Your task to perform on an android device: Clear all items from cart on target. Search for logitech g pro on target, select the first entry, add it to the cart, then select checkout. Image 0: 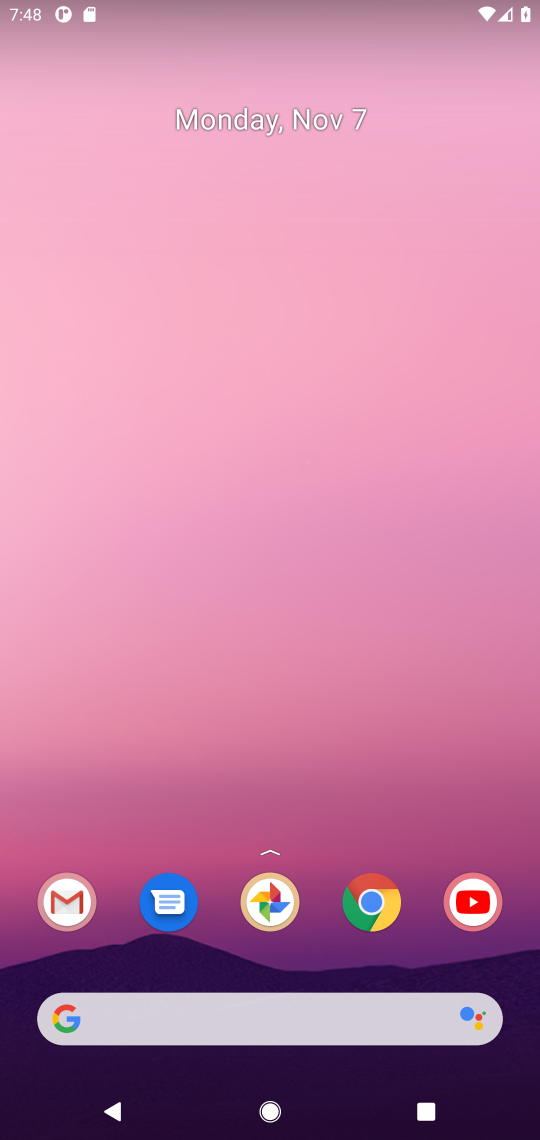
Step 0: click (360, 892)
Your task to perform on an android device: Clear all items from cart on target. Search for logitech g pro on target, select the first entry, add it to the cart, then select checkout. Image 1: 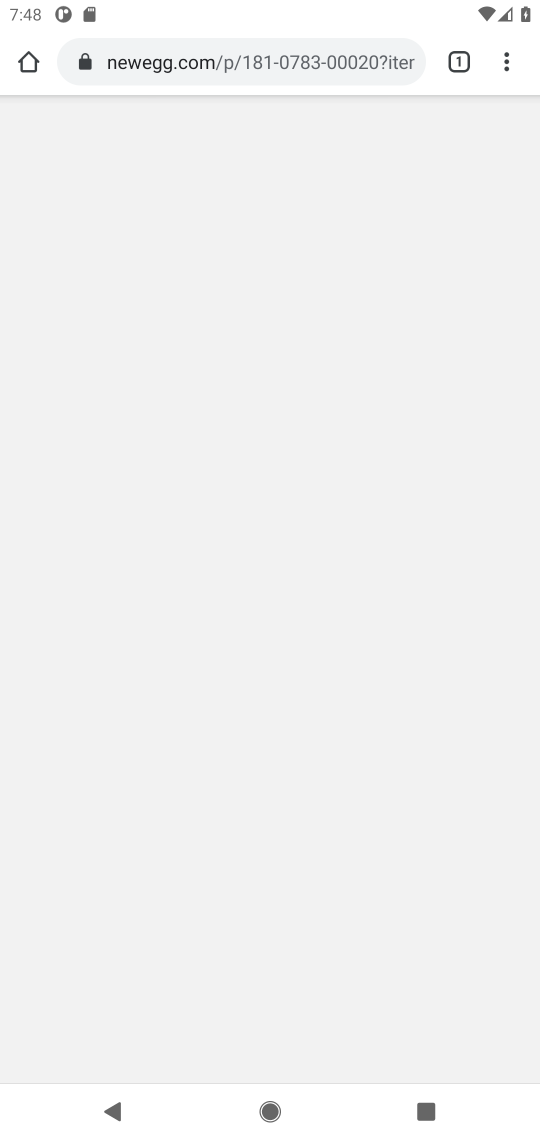
Step 1: click (221, 51)
Your task to perform on an android device: Clear all items from cart on target. Search for logitech g pro on target, select the first entry, add it to the cart, then select checkout. Image 2: 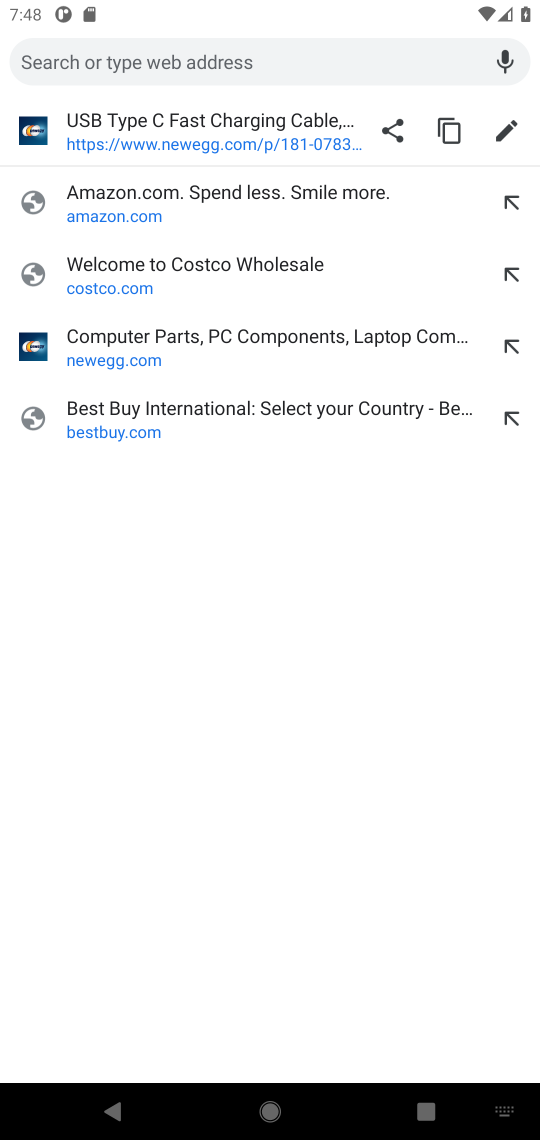
Step 2: type "target.com"
Your task to perform on an android device: Clear all items from cart on target. Search for logitech g pro on target, select the first entry, add it to the cart, then select checkout. Image 3: 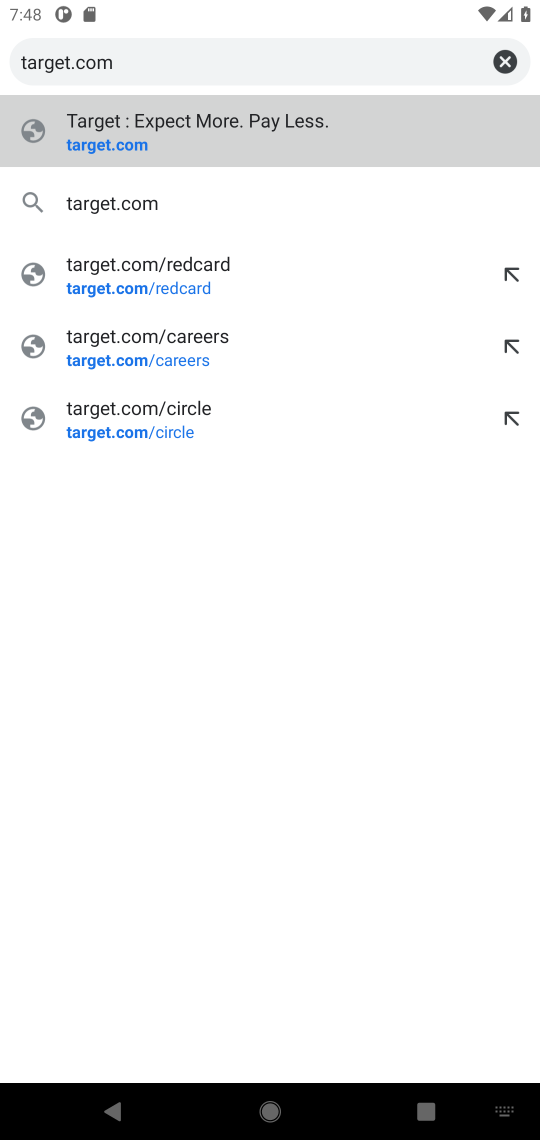
Step 3: click (130, 124)
Your task to perform on an android device: Clear all items from cart on target. Search for logitech g pro on target, select the first entry, add it to the cart, then select checkout. Image 4: 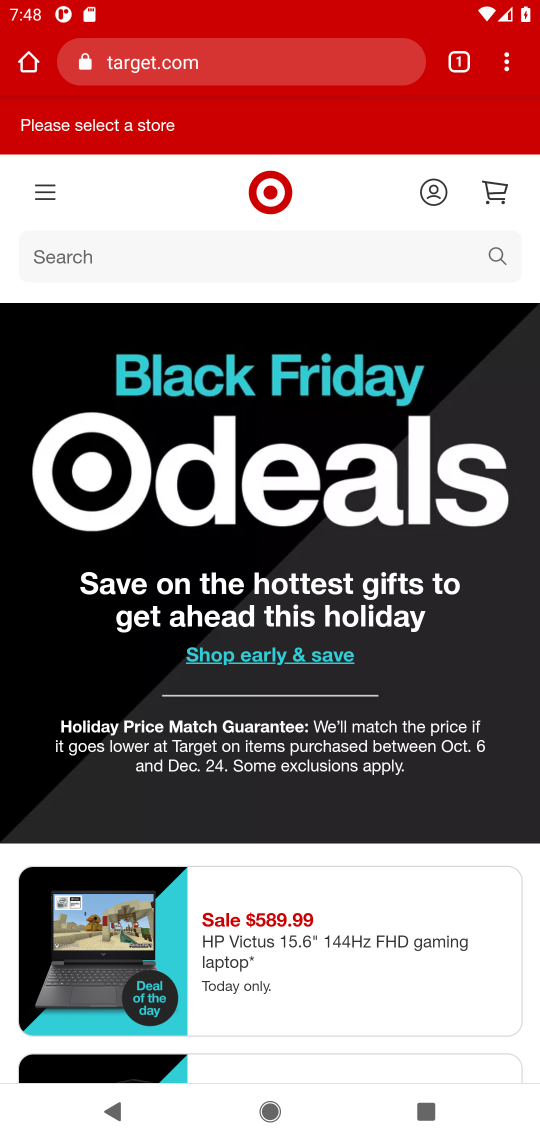
Step 4: click (491, 196)
Your task to perform on an android device: Clear all items from cart on target. Search for logitech g pro on target, select the first entry, add it to the cart, then select checkout. Image 5: 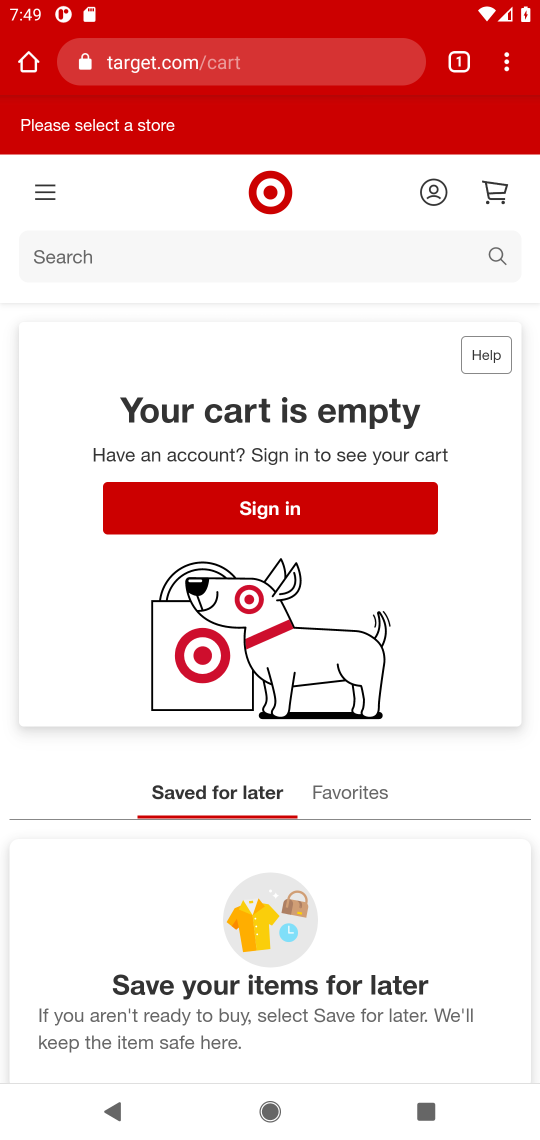
Step 5: click (501, 261)
Your task to perform on an android device: Clear all items from cart on target. Search for logitech g pro on target, select the first entry, add it to the cart, then select checkout. Image 6: 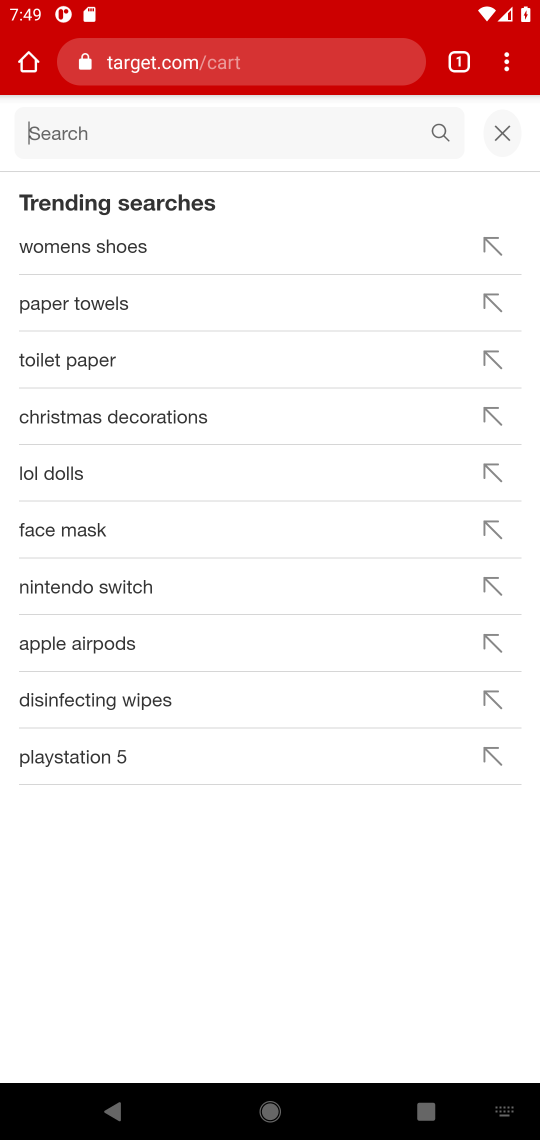
Step 6: type "logitech g pro"
Your task to perform on an android device: Clear all items from cart on target. Search for logitech g pro on target, select the first entry, add it to the cart, then select checkout. Image 7: 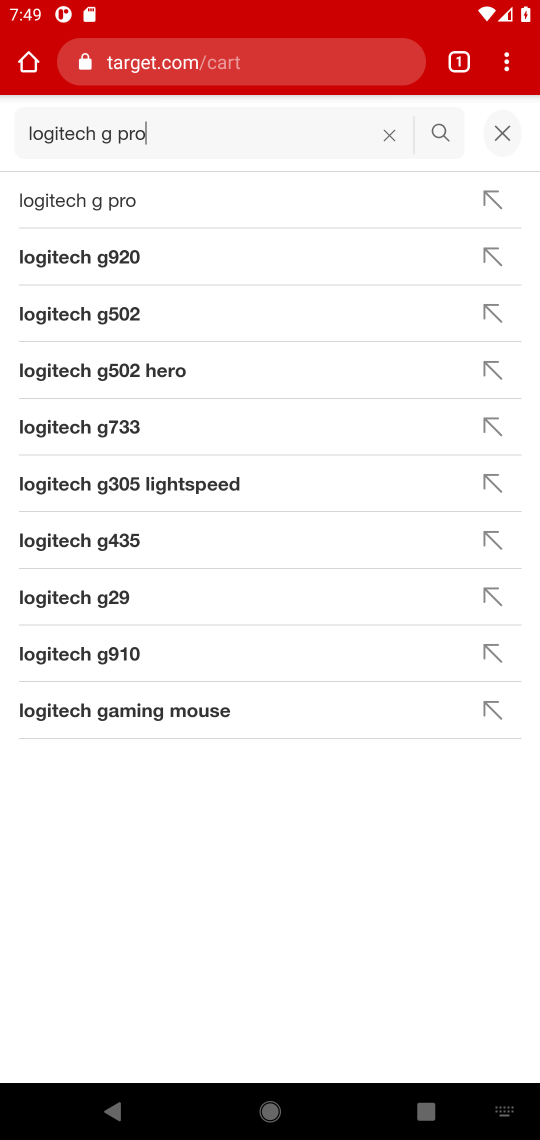
Step 7: click (62, 202)
Your task to perform on an android device: Clear all items from cart on target. Search for logitech g pro on target, select the first entry, add it to the cart, then select checkout. Image 8: 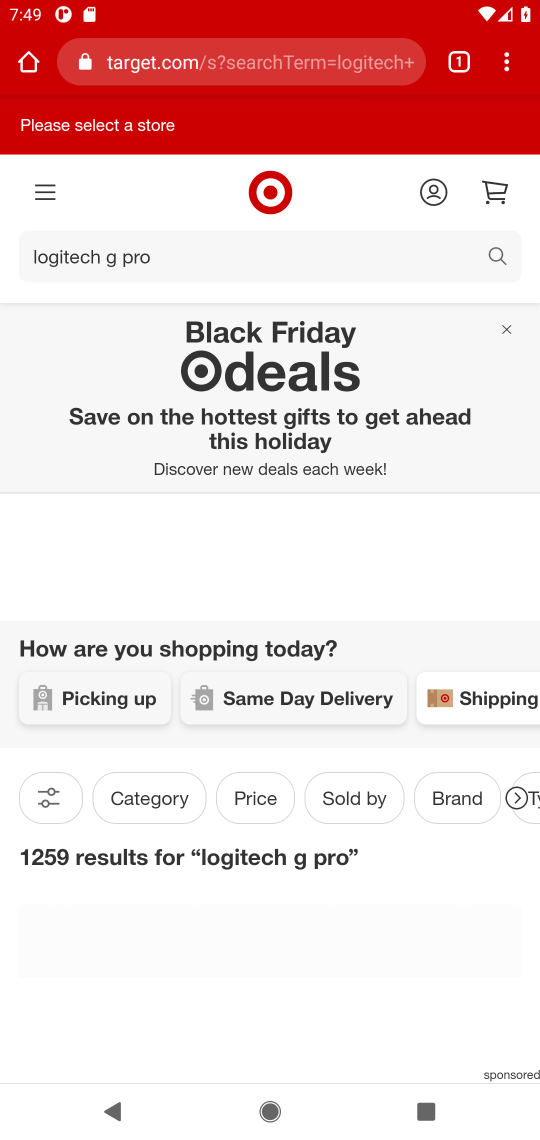
Step 8: drag from (331, 751) to (290, 268)
Your task to perform on an android device: Clear all items from cart on target. Search for logitech g pro on target, select the first entry, add it to the cart, then select checkout. Image 9: 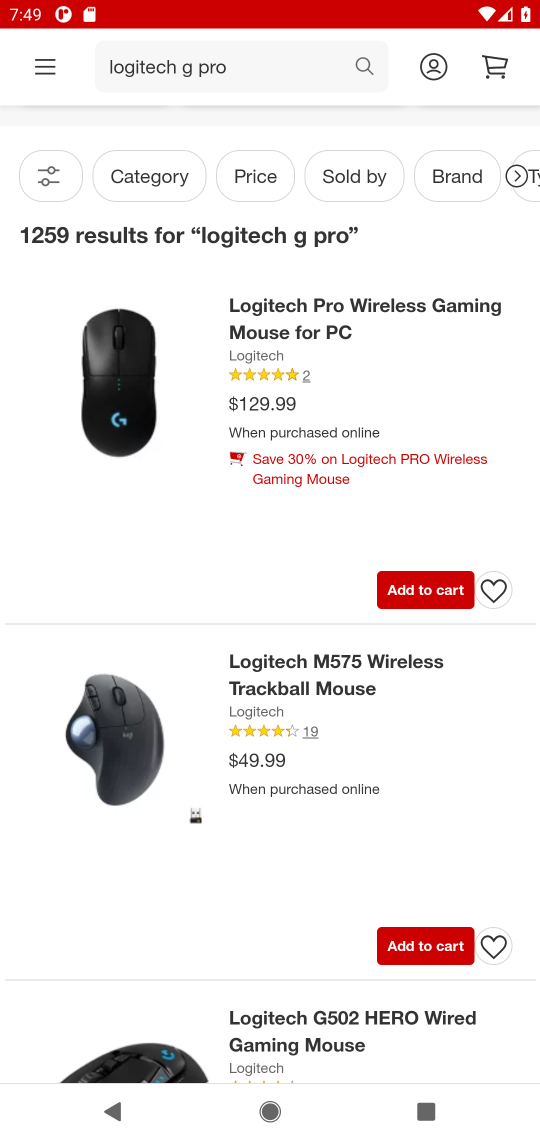
Step 9: click (140, 412)
Your task to perform on an android device: Clear all items from cart on target. Search for logitech g pro on target, select the first entry, add it to the cart, then select checkout. Image 10: 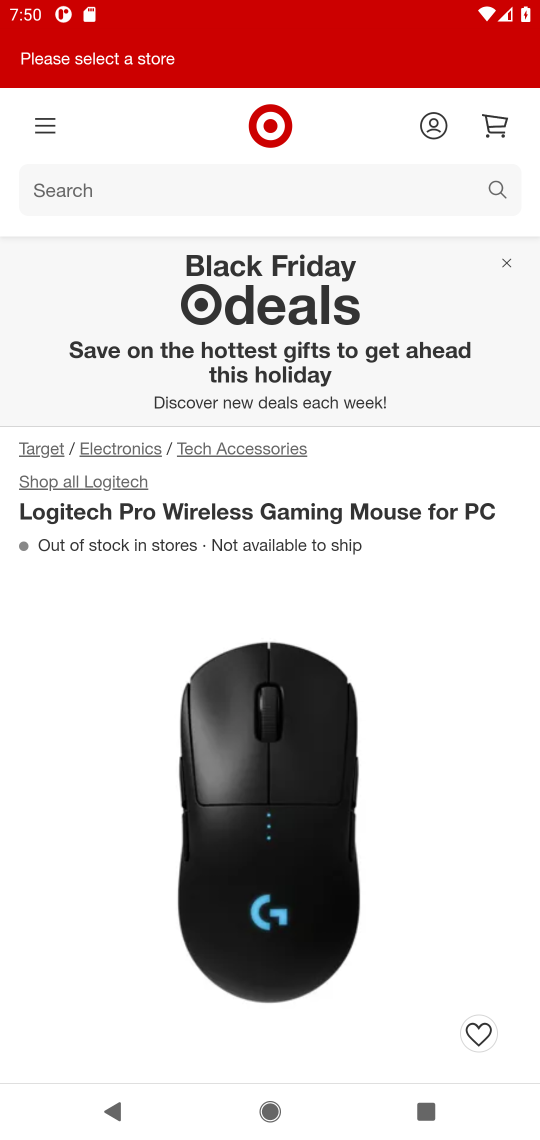
Step 10: task complete